Your task to perform on an android device: Open Google Image 0: 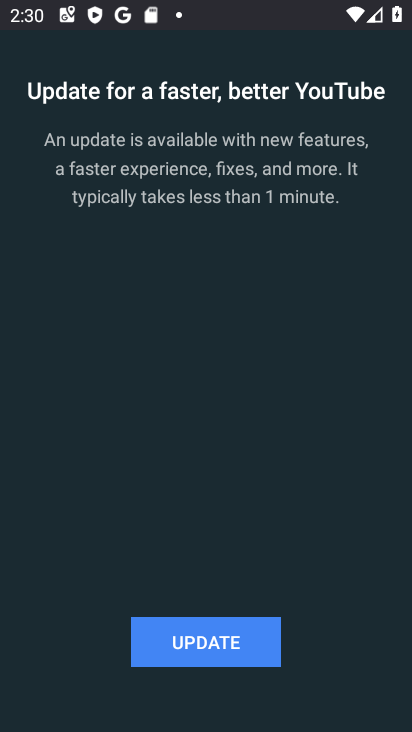
Step 0: press home button
Your task to perform on an android device: Open Google Image 1: 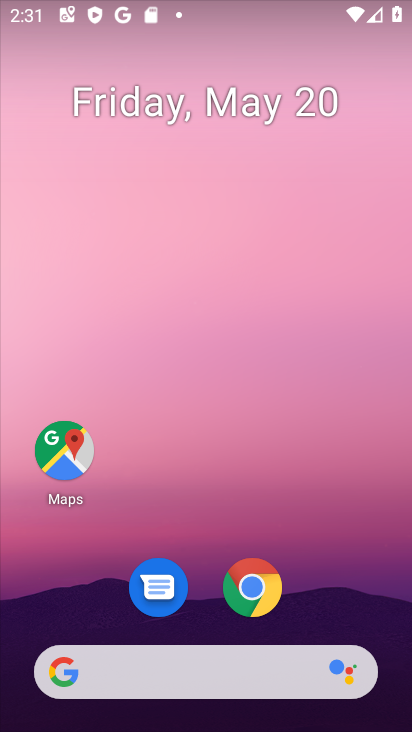
Step 1: drag from (193, 486) to (197, 368)
Your task to perform on an android device: Open Google Image 2: 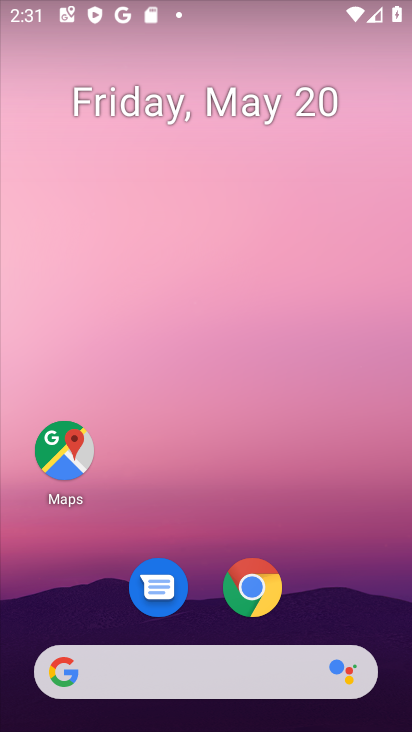
Step 2: drag from (225, 592) to (281, 354)
Your task to perform on an android device: Open Google Image 3: 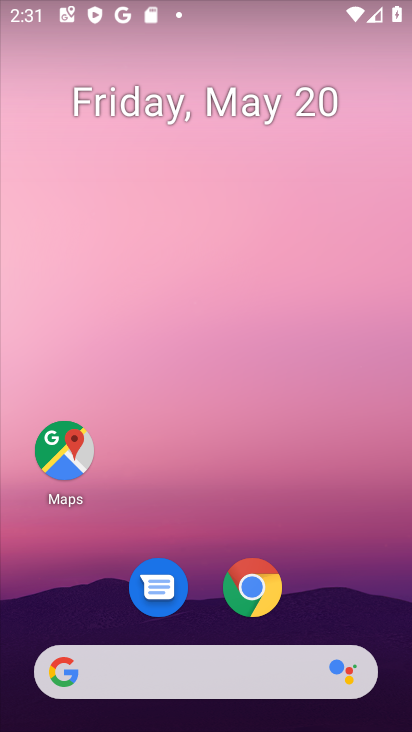
Step 3: drag from (218, 587) to (277, 303)
Your task to perform on an android device: Open Google Image 4: 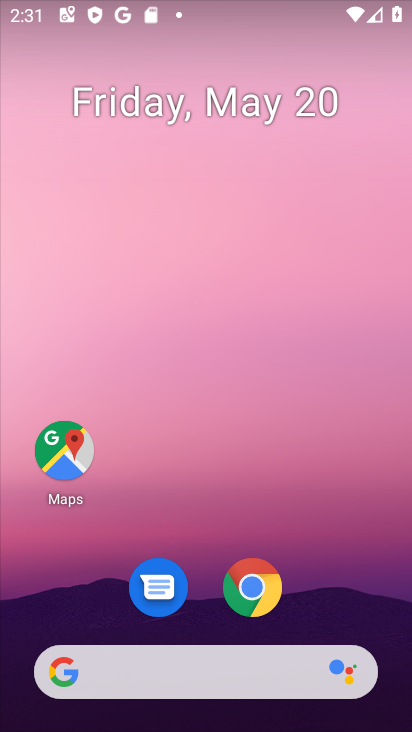
Step 4: drag from (202, 613) to (261, 150)
Your task to perform on an android device: Open Google Image 5: 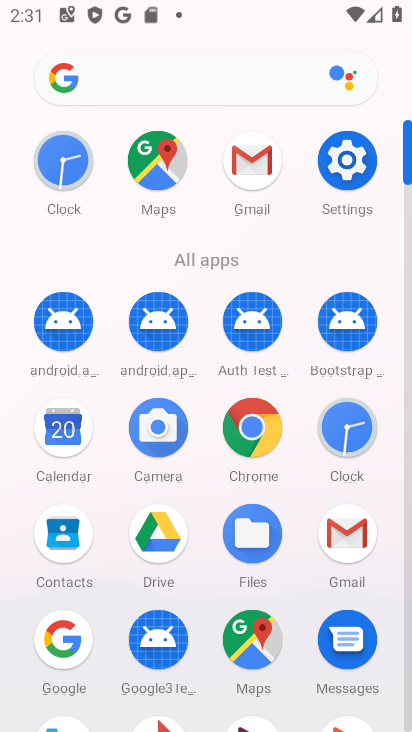
Step 5: click (60, 643)
Your task to perform on an android device: Open Google Image 6: 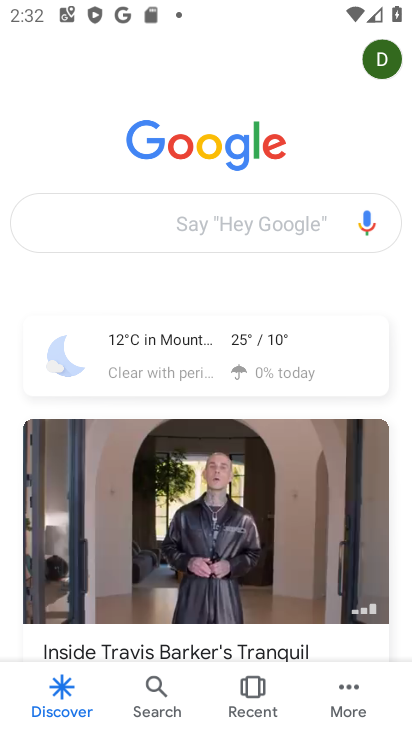
Step 6: task complete